Your task to perform on an android device: Check the news Image 0: 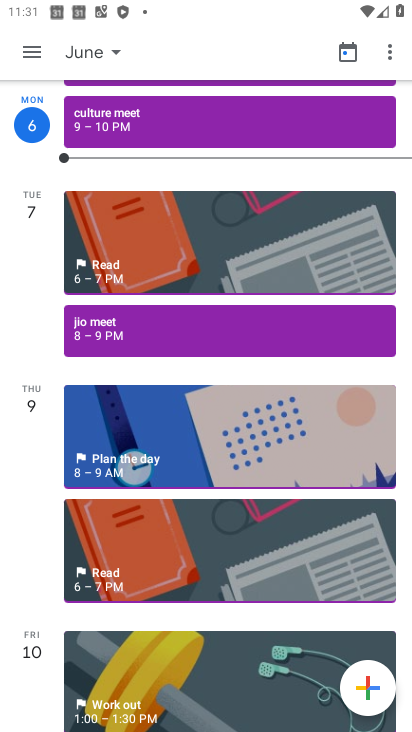
Step 0: press home button
Your task to perform on an android device: Check the news Image 1: 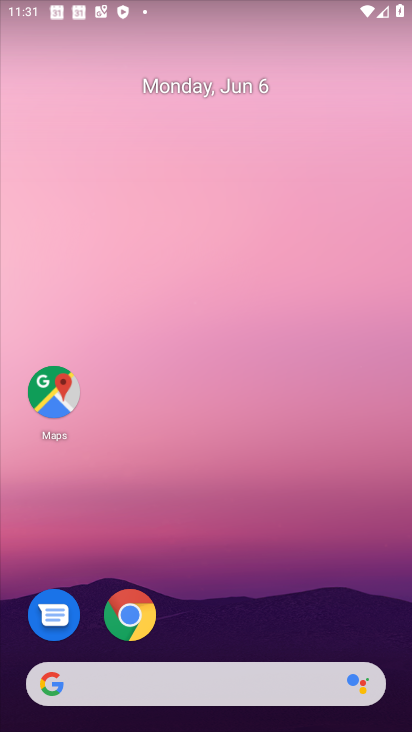
Step 1: click (226, 681)
Your task to perform on an android device: Check the news Image 2: 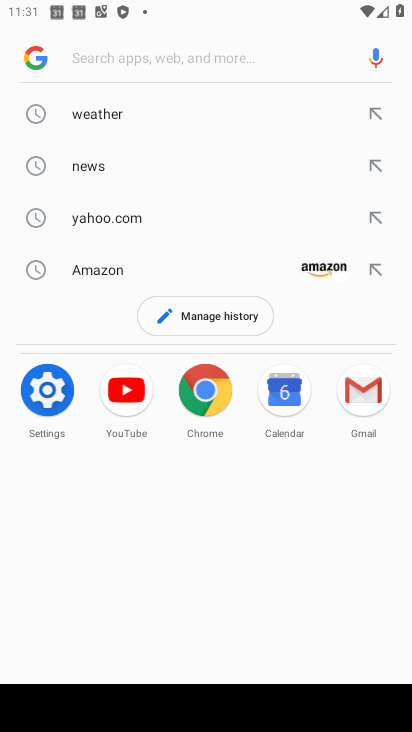
Step 2: click (120, 172)
Your task to perform on an android device: Check the news Image 3: 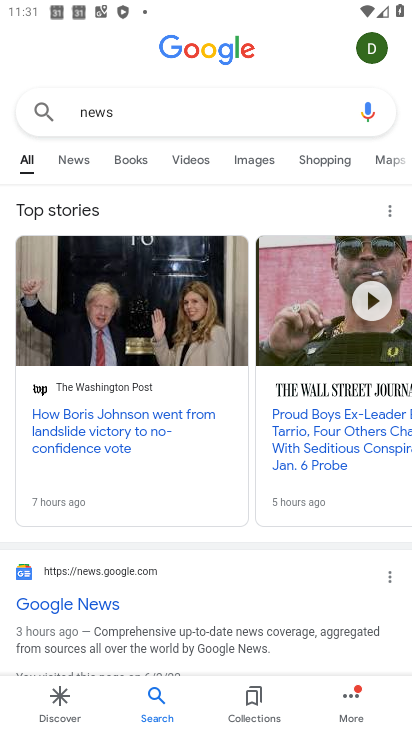
Step 3: task complete